Your task to perform on an android device: delete the emails in spam in the gmail app Image 0: 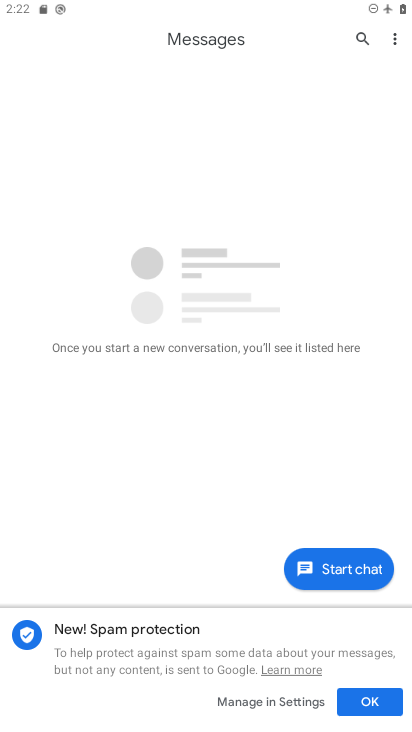
Step 0: drag from (182, 453) to (188, 35)
Your task to perform on an android device: delete the emails in spam in the gmail app Image 1: 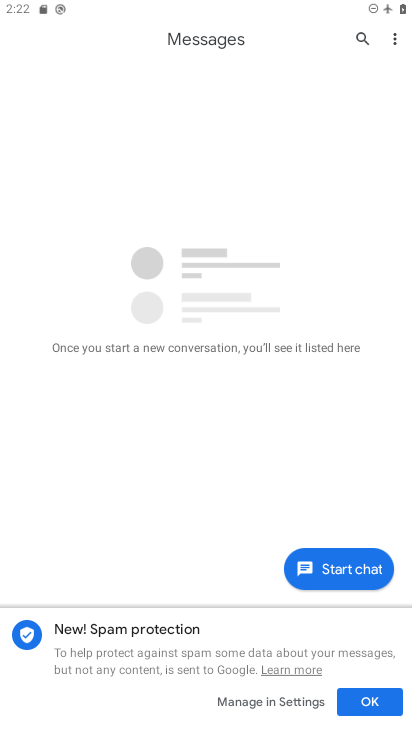
Step 1: press home button
Your task to perform on an android device: delete the emails in spam in the gmail app Image 2: 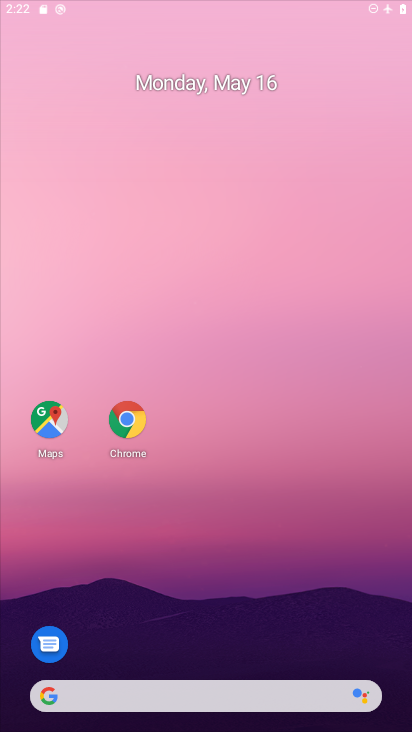
Step 2: drag from (198, 488) to (200, 29)
Your task to perform on an android device: delete the emails in spam in the gmail app Image 3: 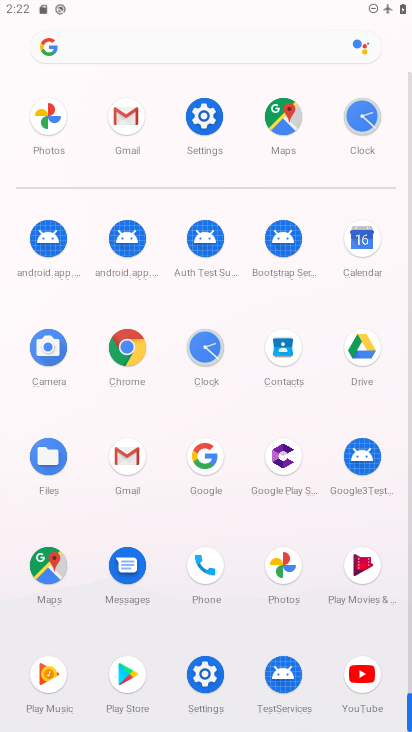
Step 3: click (126, 117)
Your task to perform on an android device: delete the emails in spam in the gmail app Image 4: 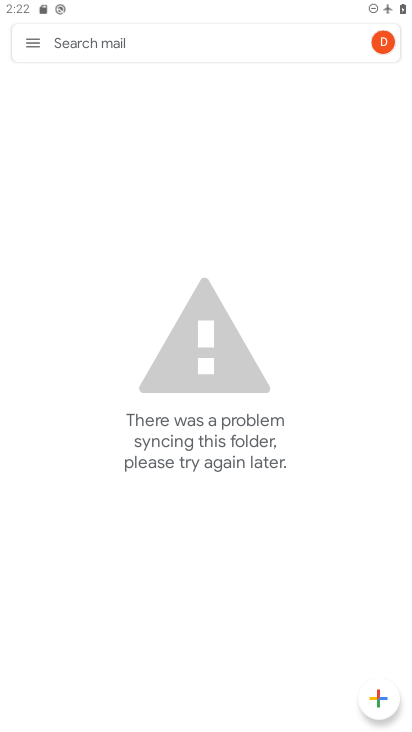
Step 4: click (26, 39)
Your task to perform on an android device: delete the emails in spam in the gmail app Image 5: 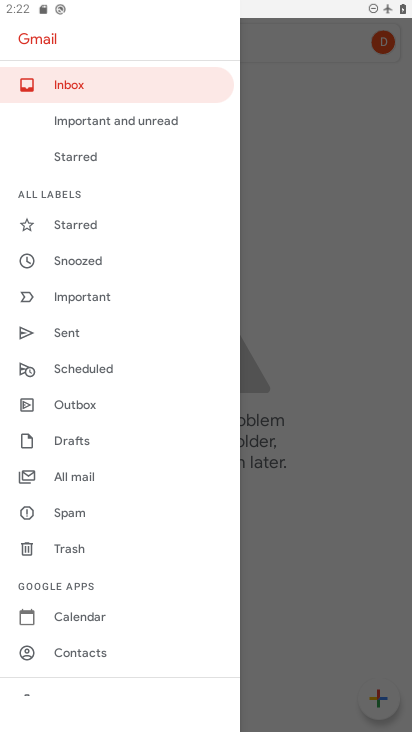
Step 5: click (95, 515)
Your task to perform on an android device: delete the emails in spam in the gmail app Image 6: 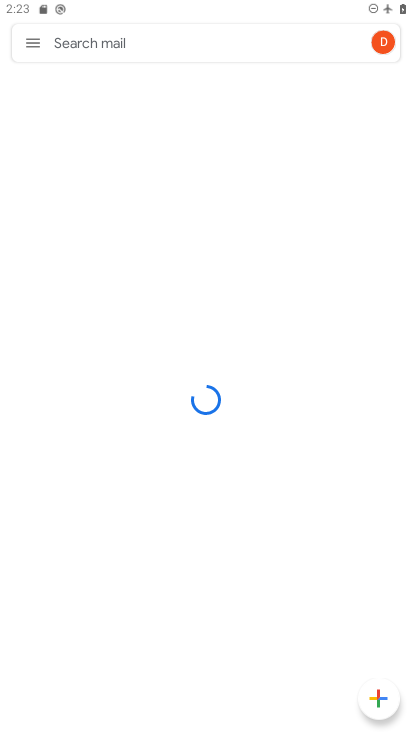
Step 6: task complete